Your task to perform on an android device: Go to notification settings Image 0: 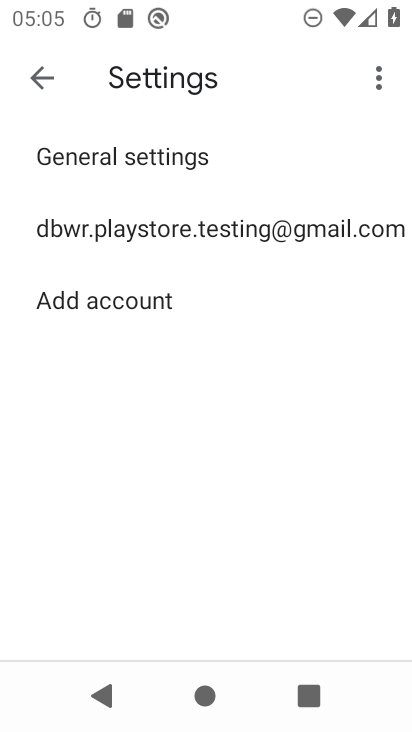
Step 0: press home button
Your task to perform on an android device: Go to notification settings Image 1: 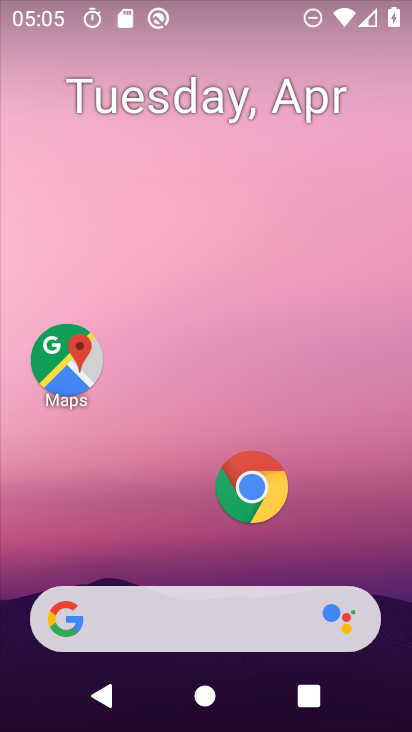
Step 1: drag from (165, 505) to (271, 7)
Your task to perform on an android device: Go to notification settings Image 2: 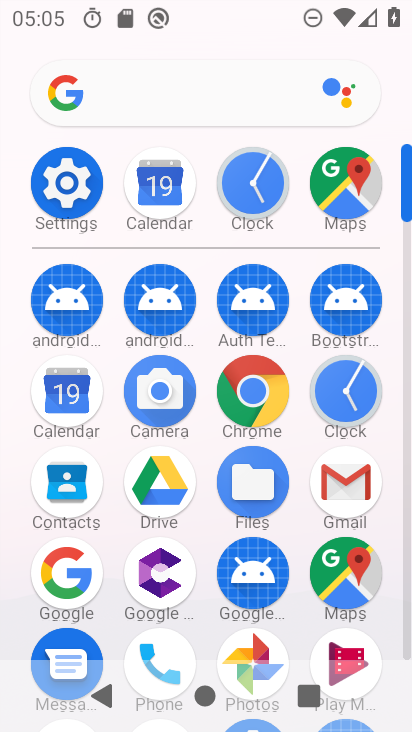
Step 2: click (71, 174)
Your task to perform on an android device: Go to notification settings Image 3: 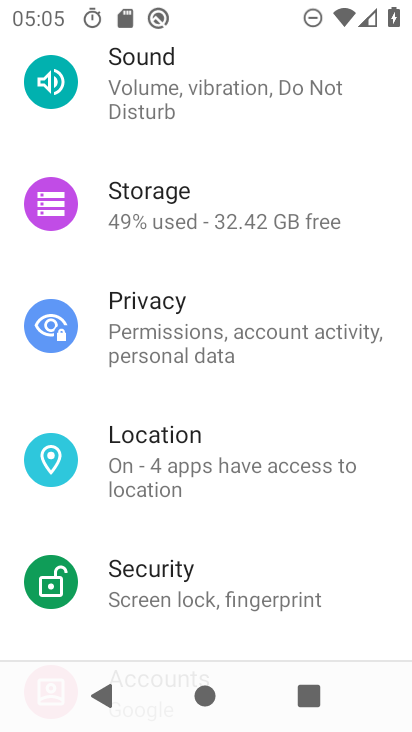
Step 3: drag from (244, 189) to (176, 604)
Your task to perform on an android device: Go to notification settings Image 4: 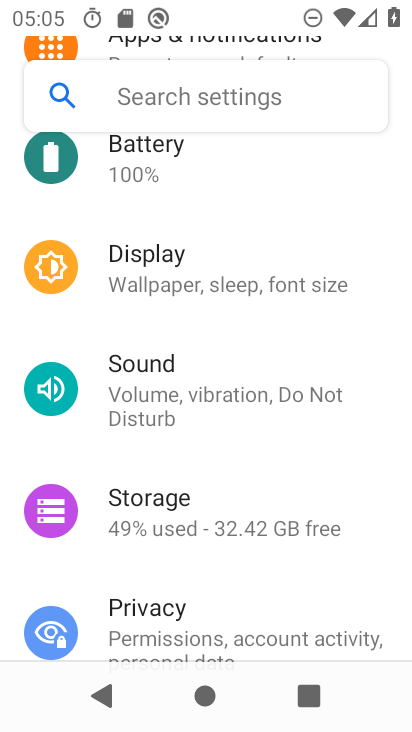
Step 4: drag from (206, 215) to (178, 590)
Your task to perform on an android device: Go to notification settings Image 5: 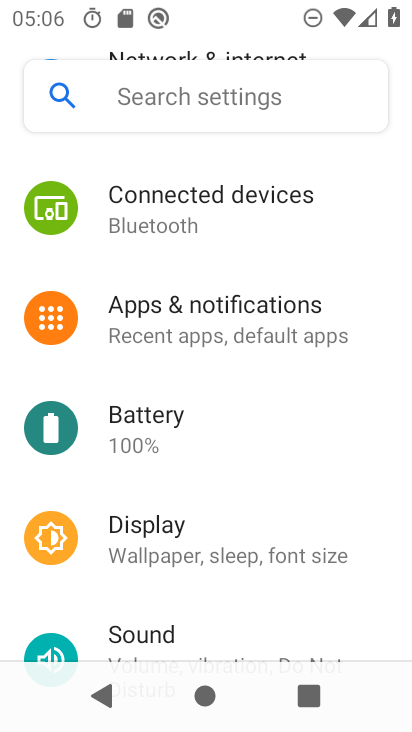
Step 5: click (214, 306)
Your task to perform on an android device: Go to notification settings Image 6: 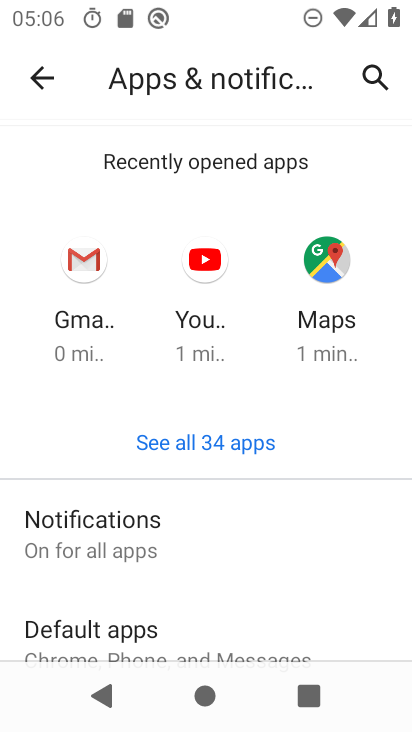
Step 6: task complete